Your task to perform on an android device: Open Youtube and go to "Your channel" Image 0: 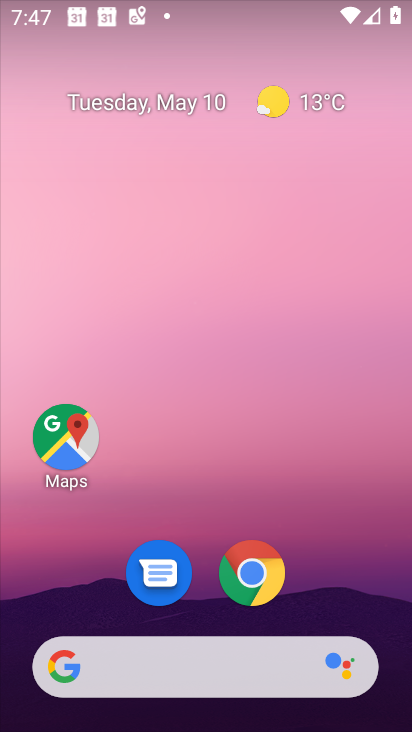
Step 0: drag from (365, 585) to (317, 1)
Your task to perform on an android device: Open Youtube and go to "Your channel" Image 1: 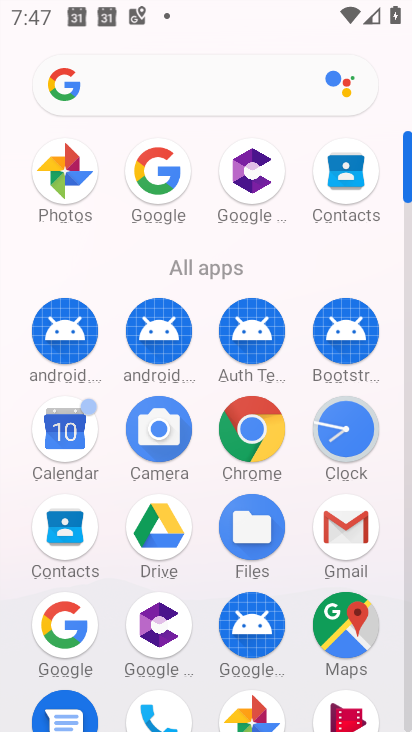
Step 1: click (407, 595)
Your task to perform on an android device: Open Youtube and go to "Your channel" Image 2: 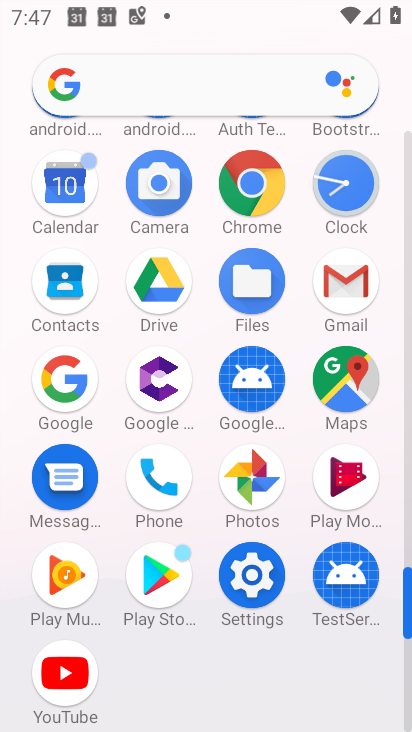
Step 2: click (66, 677)
Your task to perform on an android device: Open Youtube and go to "Your channel" Image 3: 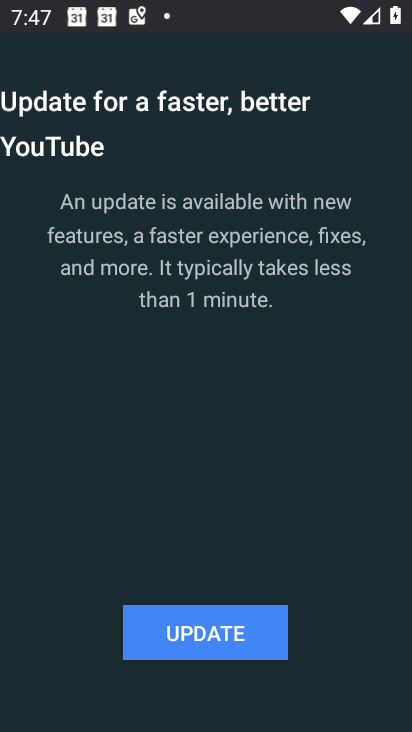
Step 3: click (207, 637)
Your task to perform on an android device: Open Youtube and go to "Your channel" Image 4: 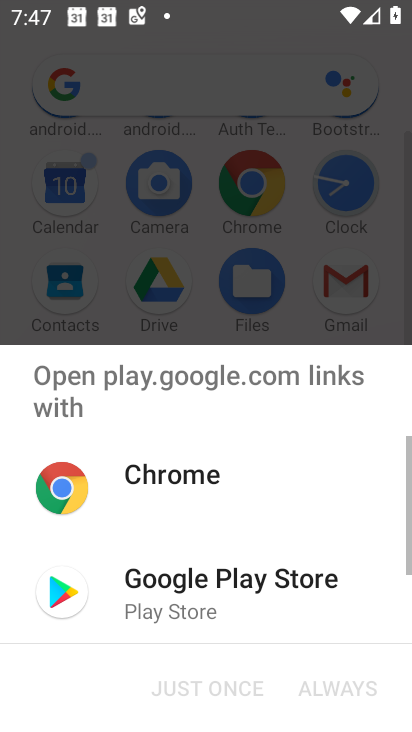
Step 4: click (169, 598)
Your task to perform on an android device: Open Youtube and go to "Your channel" Image 5: 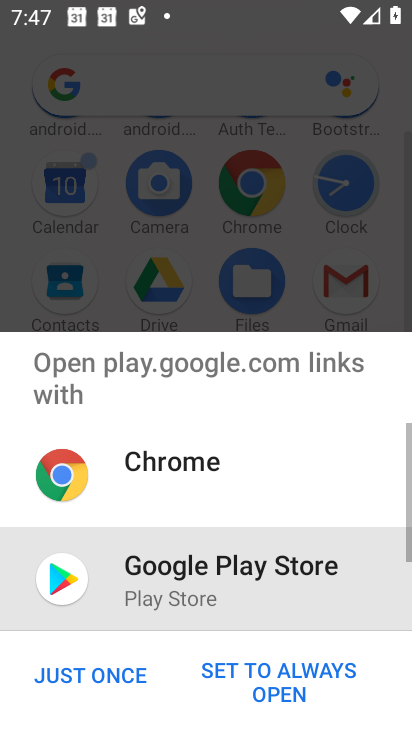
Step 5: click (87, 673)
Your task to perform on an android device: Open Youtube and go to "Your channel" Image 6: 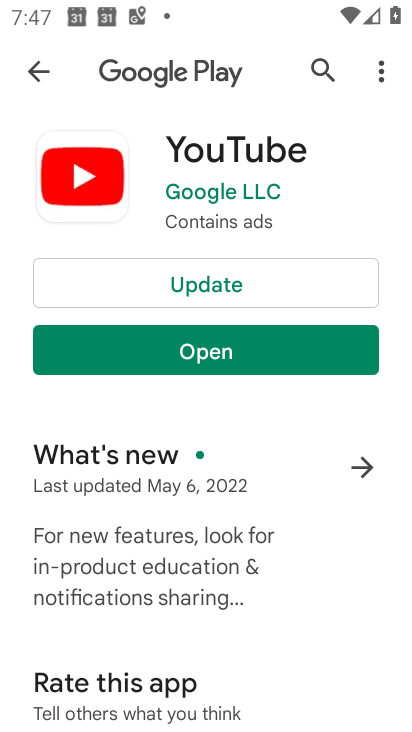
Step 6: click (186, 290)
Your task to perform on an android device: Open Youtube and go to "Your channel" Image 7: 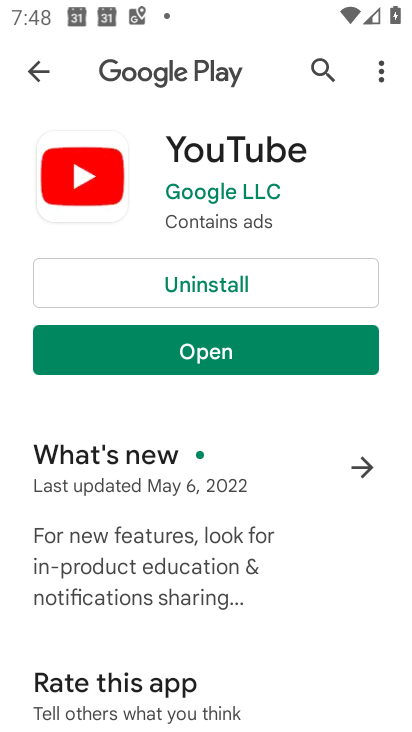
Step 7: click (229, 352)
Your task to perform on an android device: Open Youtube and go to "Your channel" Image 8: 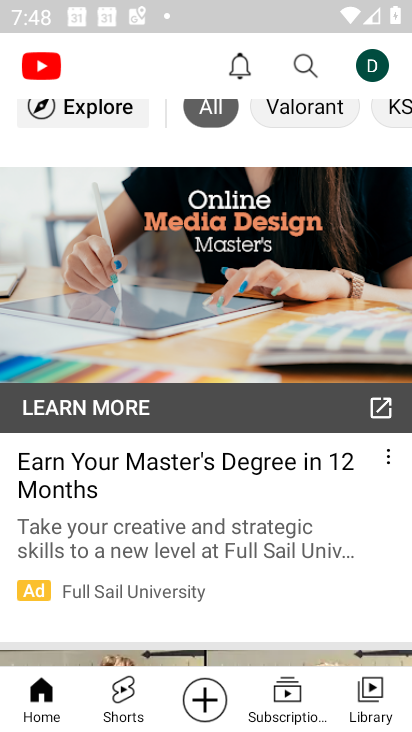
Step 8: click (371, 76)
Your task to perform on an android device: Open Youtube and go to "Your channel" Image 9: 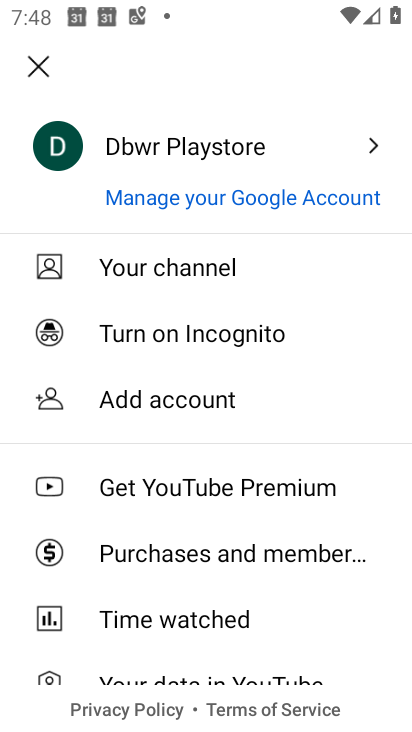
Step 9: click (172, 282)
Your task to perform on an android device: Open Youtube and go to "Your channel" Image 10: 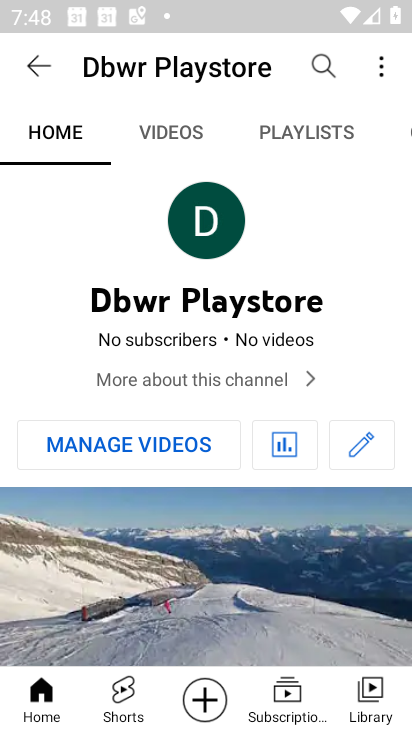
Step 10: task complete